Your task to perform on an android device: turn on translation in the chrome app Image 0: 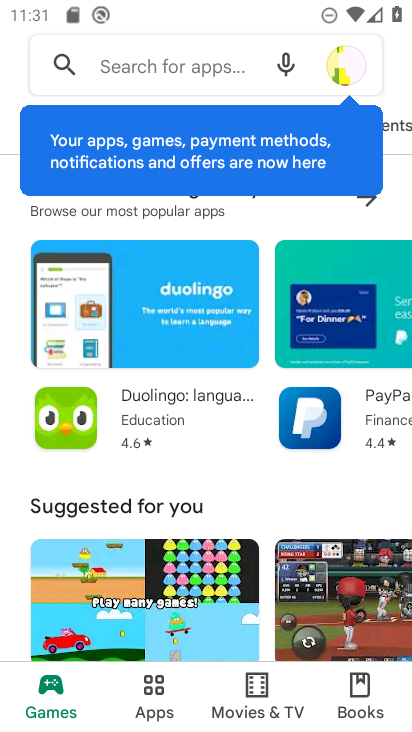
Step 0: press home button
Your task to perform on an android device: turn on translation in the chrome app Image 1: 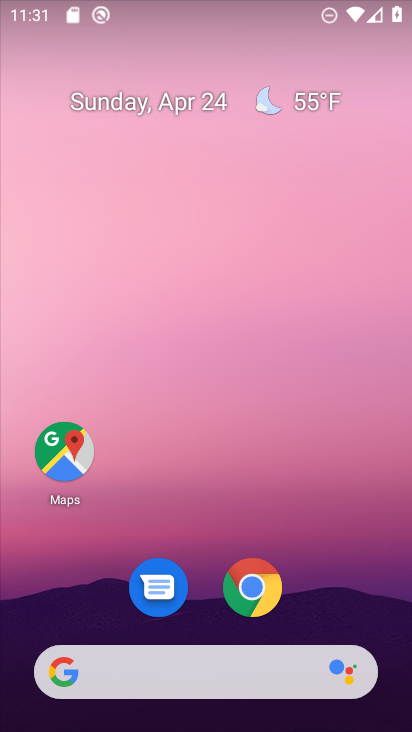
Step 1: drag from (296, 599) to (310, 177)
Your task to perform on an android device: turn on translation in the chrome app Image 2: 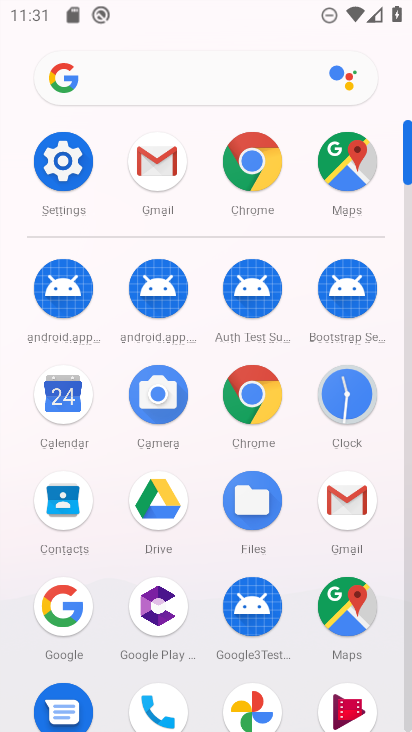
Step 2: click (254, 410)
Your task to perform on an android device: turn on translation in the chrome app Image 3: 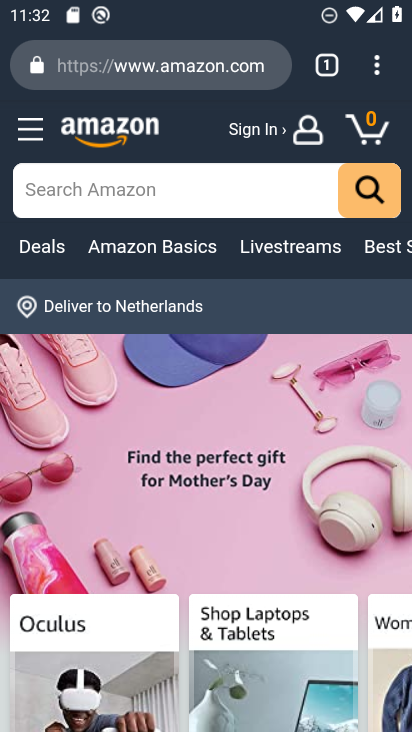
Step 3: drag from (382, 67) to (178, 621)
Your task to perform on an android device: turn on translation in the chrome app Image 4: 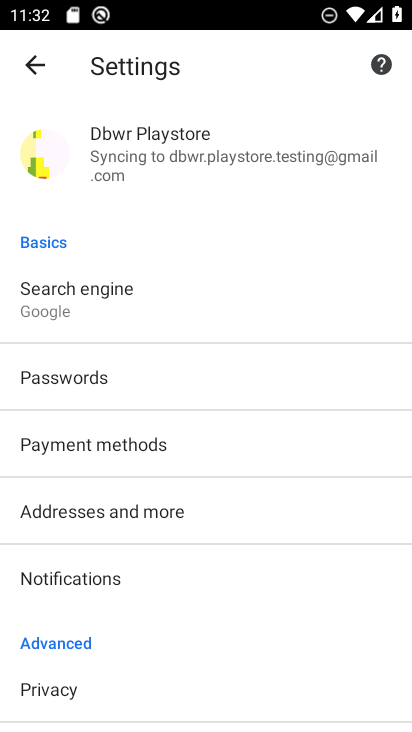
Step 4: drag from (129, 585) to (218, 139)
Your task to perform on an android device: turn on translation in the chrome app Image 5: 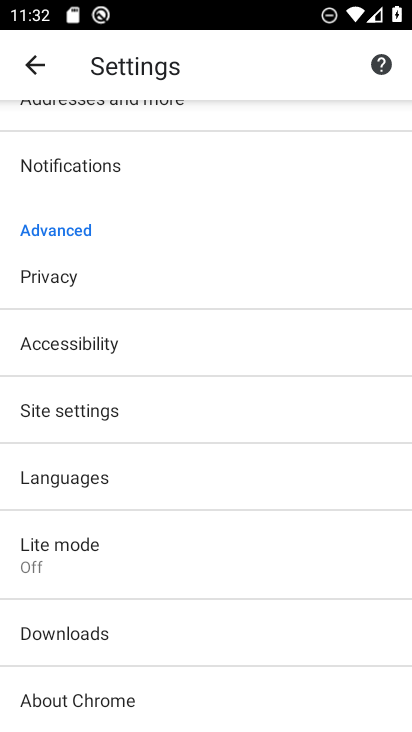
Step 5: click (94, 486)
Your task to perform on an android device: turn on translation in the chrome app Image 6: 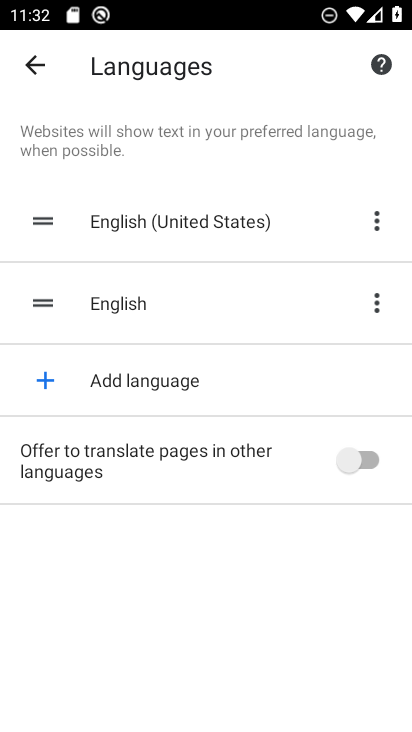
Step 6: click (216, 443)
Your task to perform on an android device: turn on translation in the chrome app Image 7: 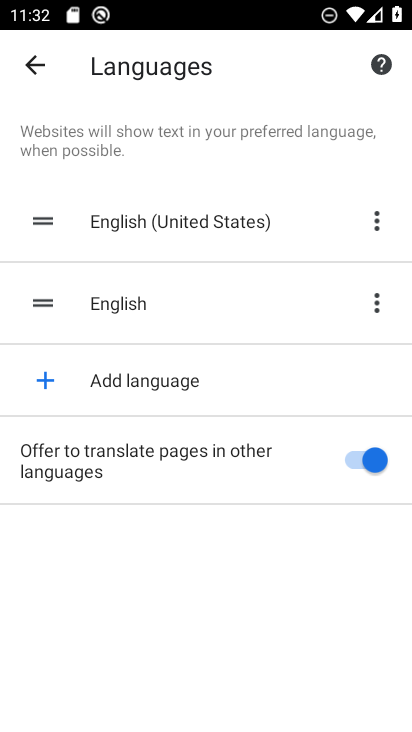
Step 7: task complete